Your task to perform on an android device: Open Reddit.com Image 0: 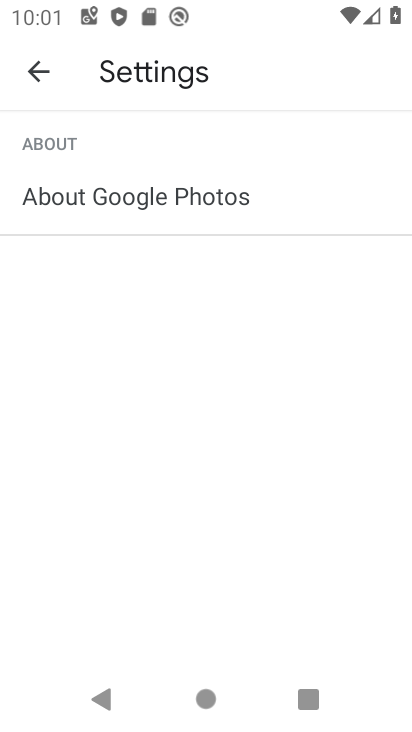
Step 0: press home button
Your task to perform on an android device: Open Reddit.com Image 1: 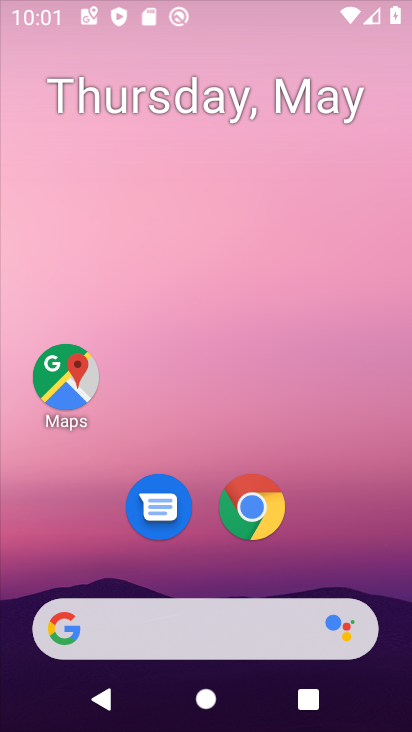
Step 1: drag from (217, 607) to (247, 123)
Your task to perform on an android device: Open Reddit.com Image 2: 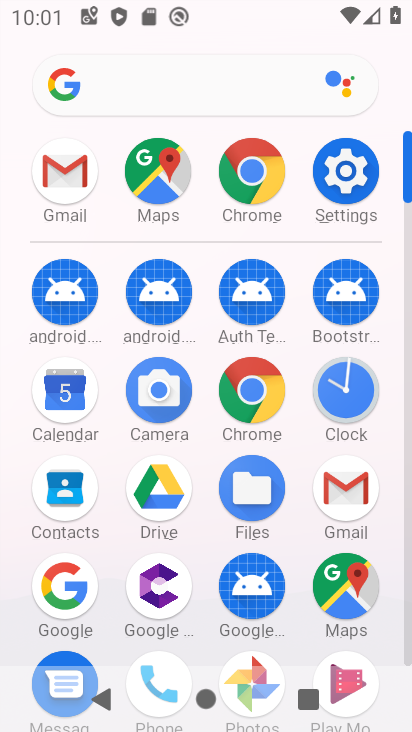
Step 2: click (269, 194)
Your task to perform on an android device: Open Reddit.com Image 3: 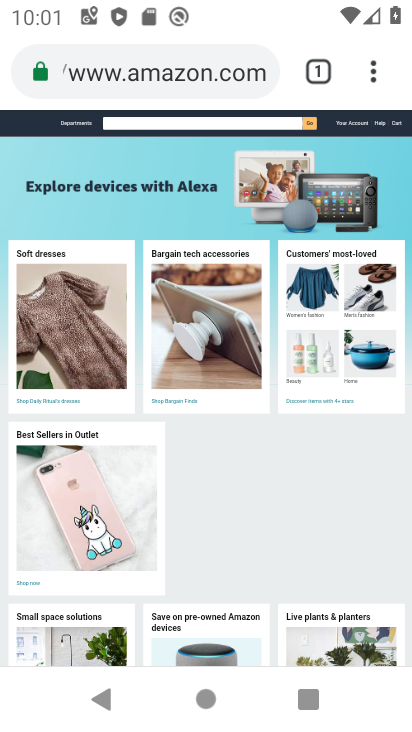
Step 3: click (169, 385)
Your task to perform on an android device: Open Reddit.com Image 4: 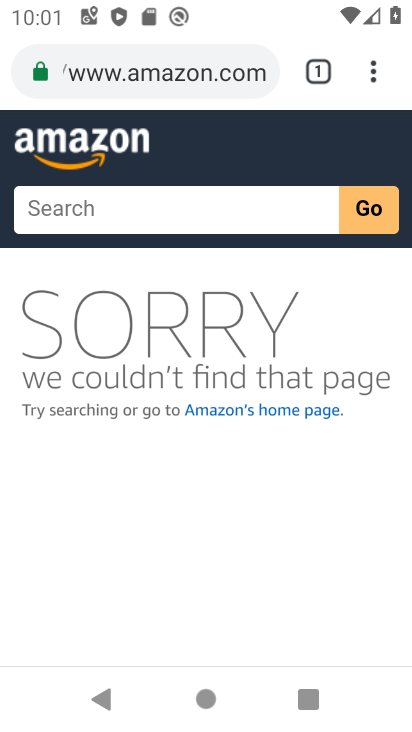
Step 4: click (161, 75)
Your task to perform on an android device: Open Reddit.com Image 5: 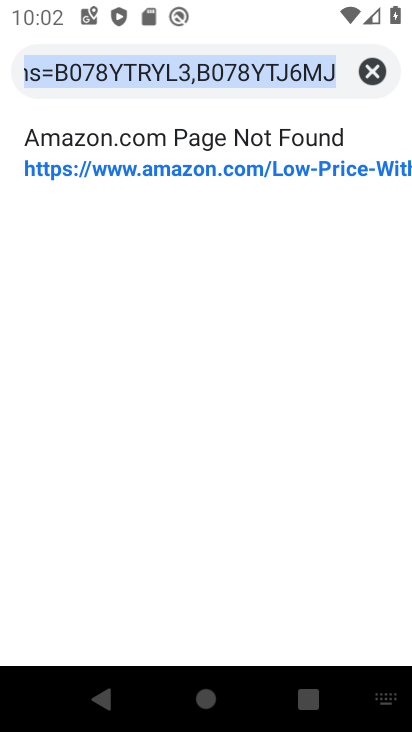
Step 5: type "reddit.com"
Your task to perform on an android device: Open Reddit.com Image 6: 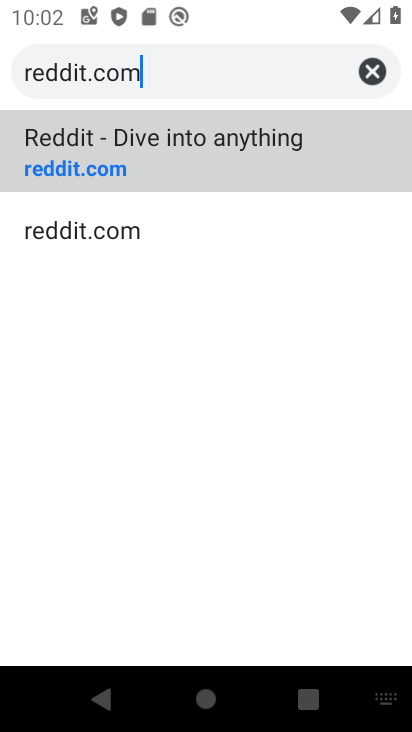
Step 6: click (221, 144)
Your task to perform on an android device: Open Reddit.com Image 7: 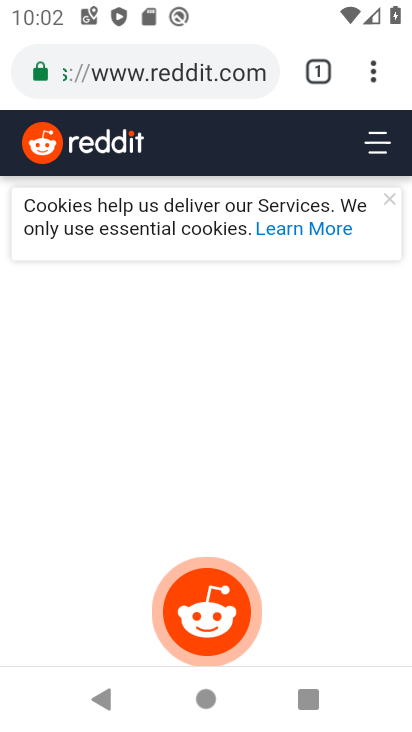
Step 7: task complete